Your task to perform on an android device: see creations saved in the google photos Image 0: 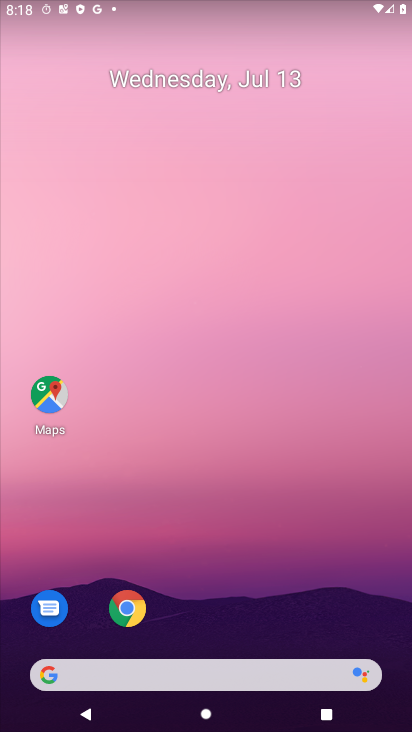
Step 0: drag from (225, 398) to (222, 45)
Your task to perform on an android device: see creations saved in the google photos Image 1: 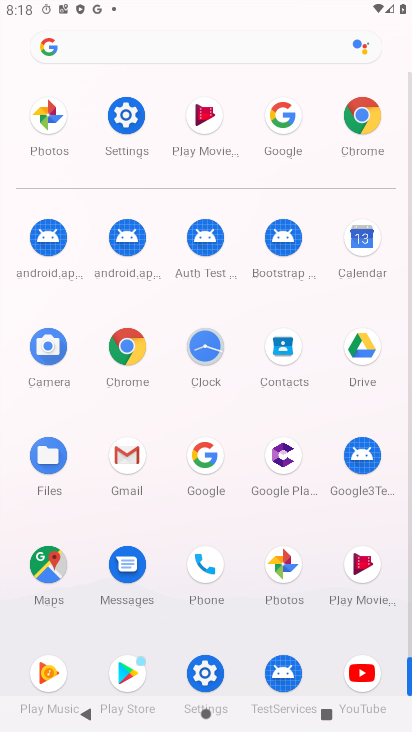
Step 1: click (286, 545)
Your task to perform on an android device: see creations saved in the google photos Image 2: 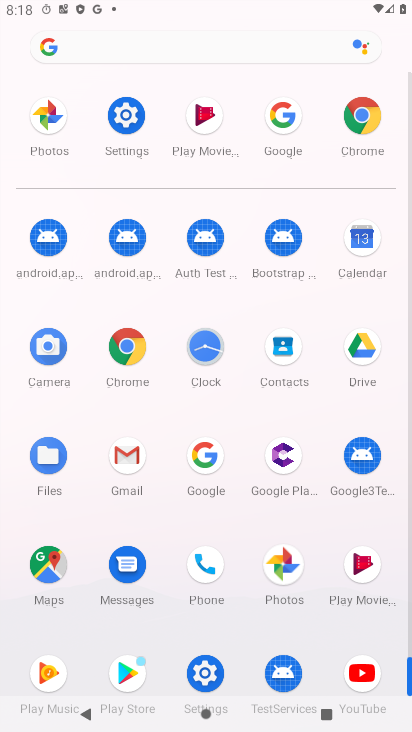
Step 2: click (286, 545)
Your task to perform on an android device: see creations saved in the google photos Image 3: 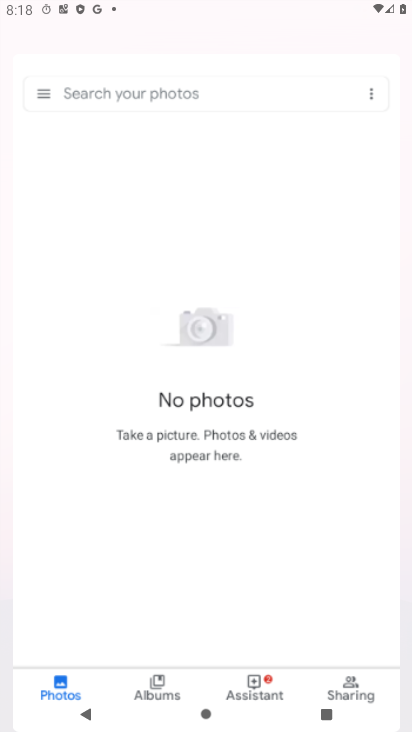
Step 3: click (287, 544)
Your task to perform on an android device: see creations saved in the google photos Image 4: 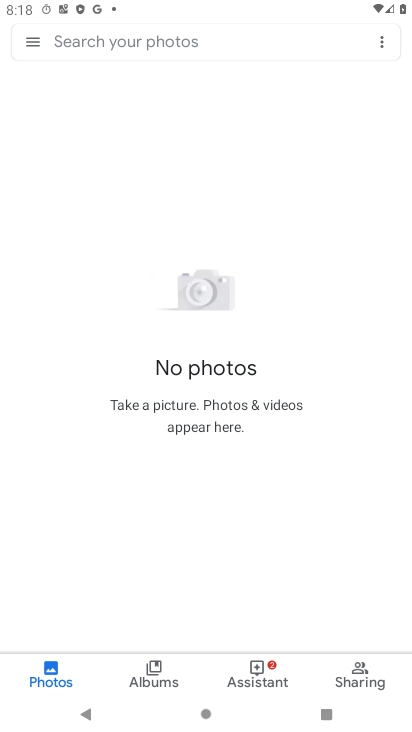
Step 4: task complete